Your task to perform on an android device: What is the recent news? Image 0: 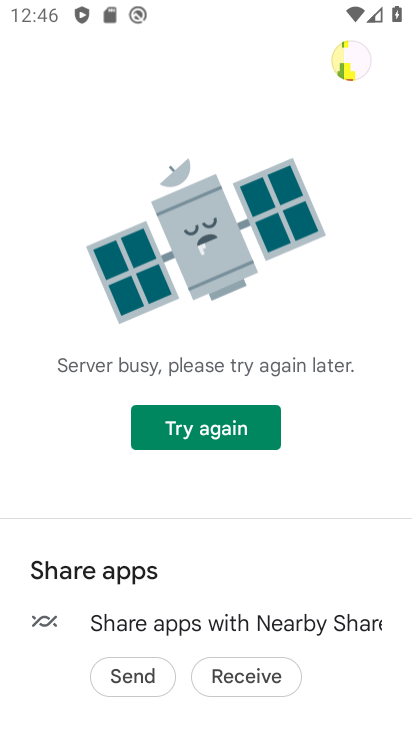
Step 0: press home button
Your task to perform on an android device: What is the recent news? Image 1: 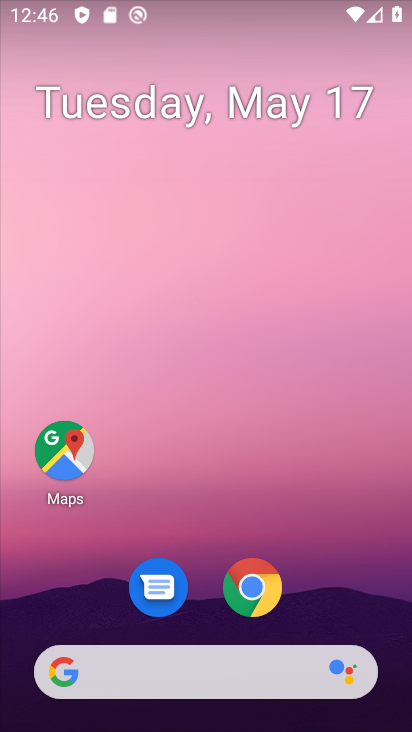
Step 1: click (198, 661)
Your task to perform on an android device: What is the recent news? Image 2: 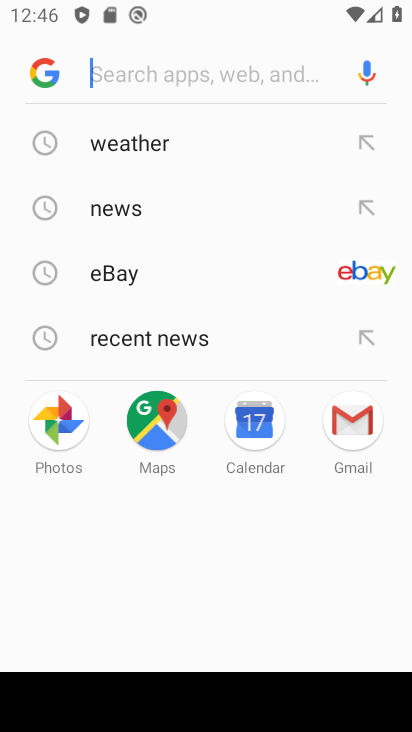
Step 2: click (208, 160)
Your task to perform on an android device: What is the recent news? Image 3: 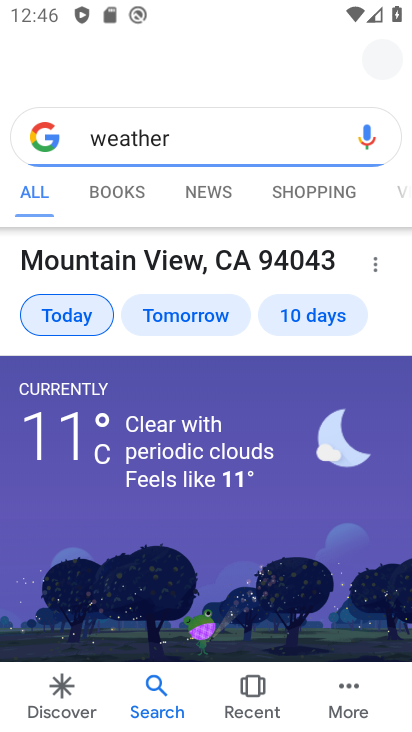
Step 3: task complete